Your task to perform on an android device: Turn on the flashlight Image 0: 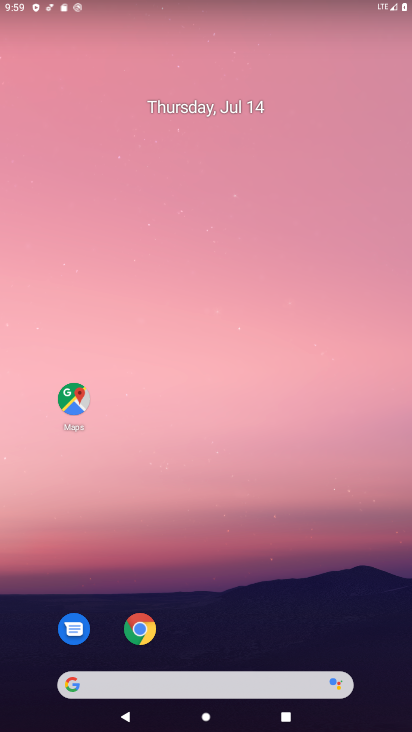
Step 0: drag from (259, 592) to (262, 1)
Your task to perform on an android device: Turn on the flashlight Image 1: 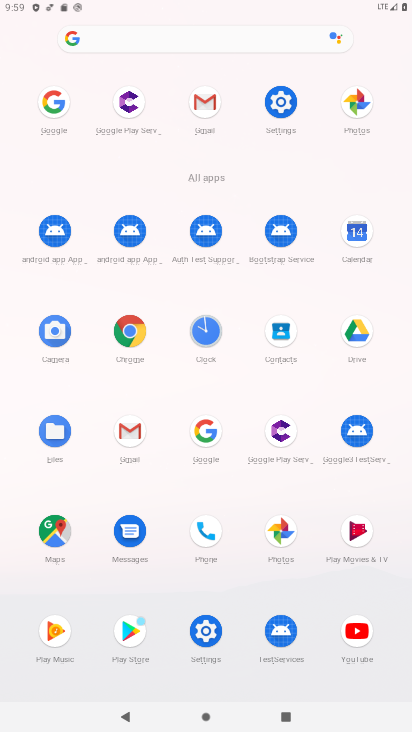
Step 1: click (282, 107)
Your task to perform on an android device: Turn on the flashlight Image 2: 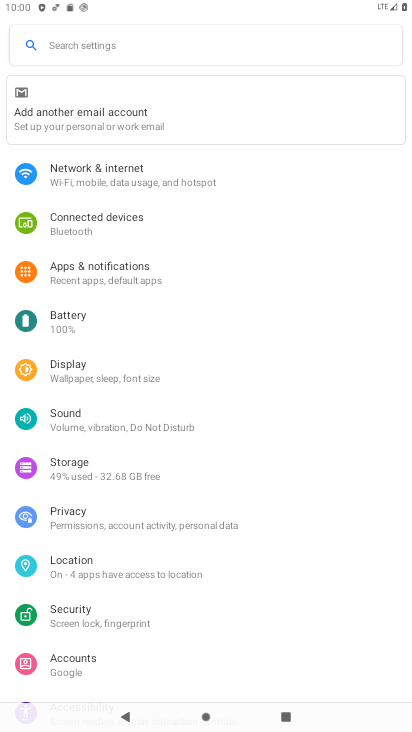
Step 2: task complete